Your task to perform on an android device: Open the play store Image 0: 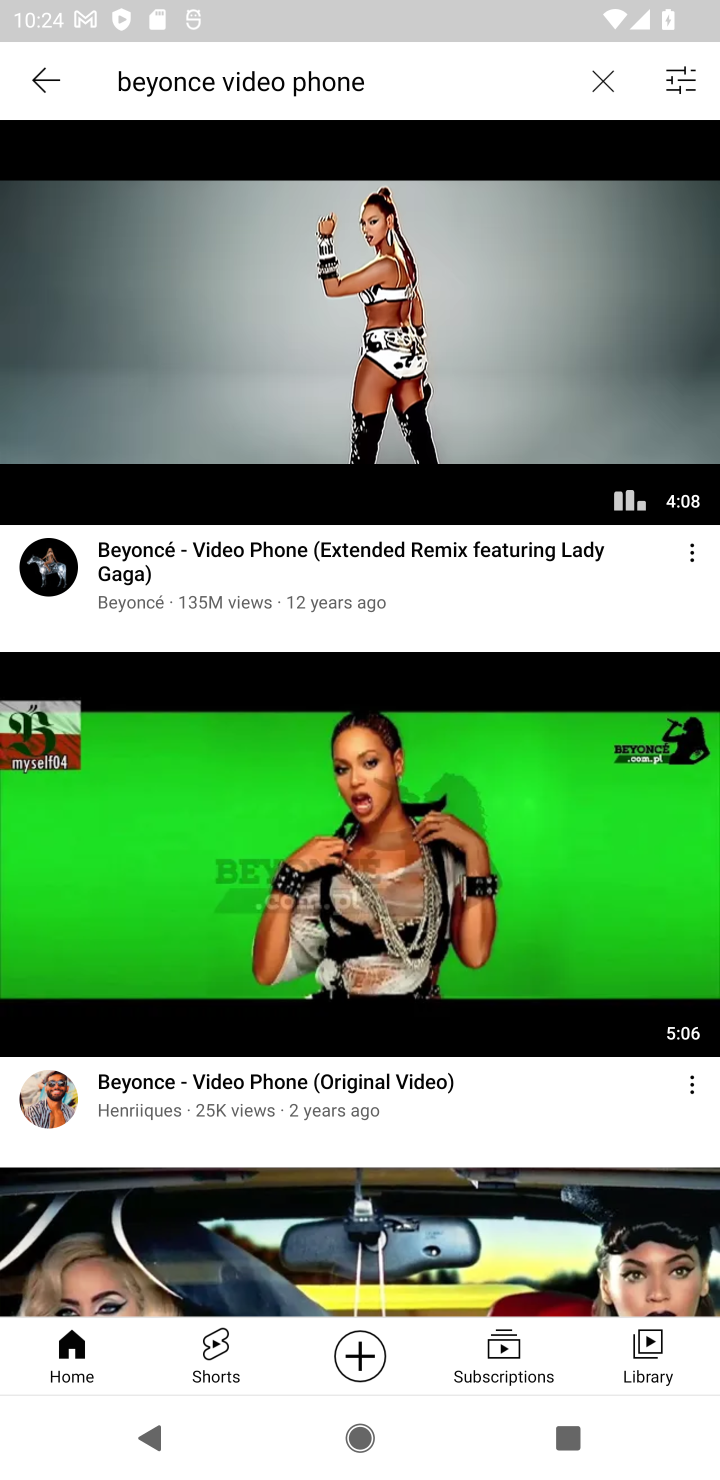
Step 0: task complete